Your task to perform on an android device: turn off translation in the chrome app Image 0: 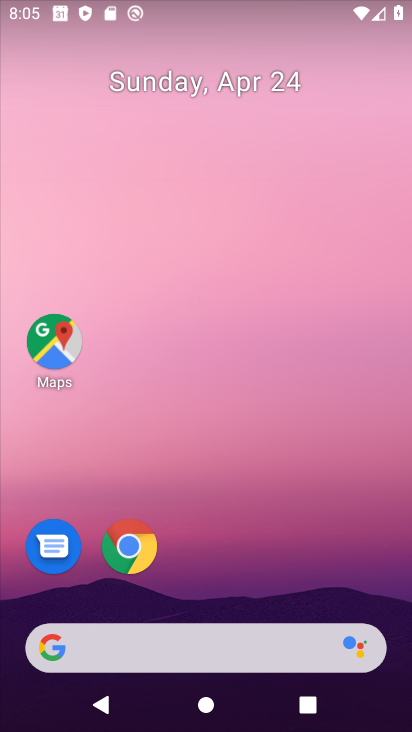
Step 0: click (147, 544)
Your task to perform on an android device: turn off translation in the chrome app Image 1: 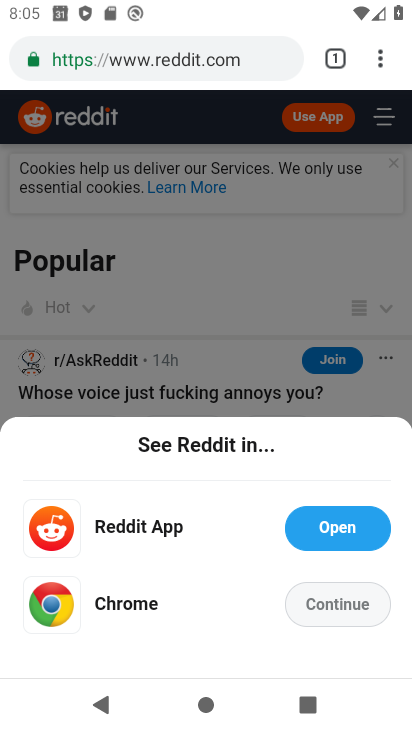
Step 1: click (328, 382)
Your task to perform on an android device: turn off translation in the chrome app Image 2: 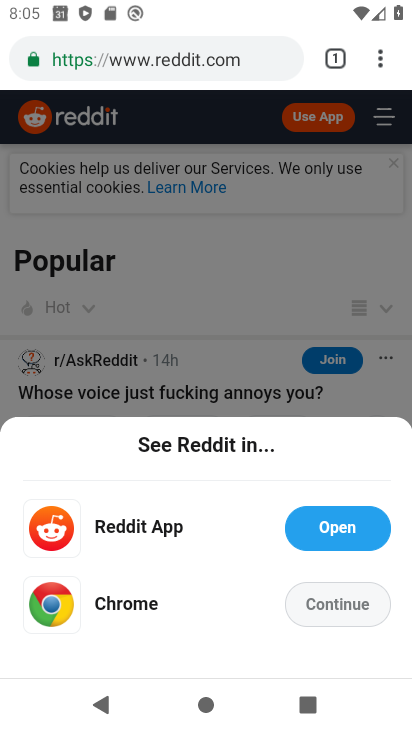
Step 2: click (381, 82)
Your task to perform on an android device: turn off translation in the chrome app Image 3: 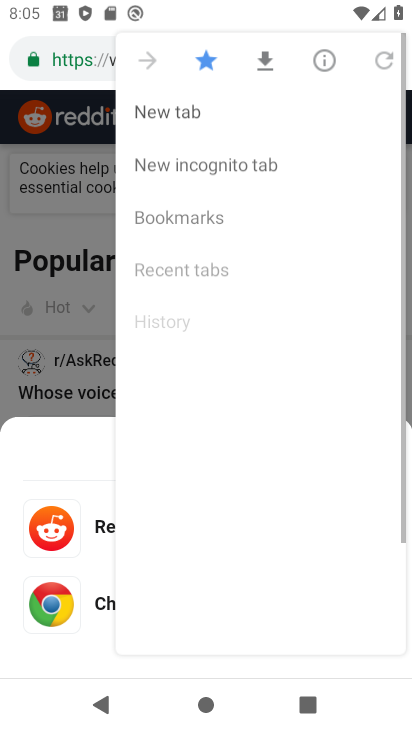
Step 3: click (381, 57)
Your task to perform on an android device: turn off translation in the chrome app Image 4: 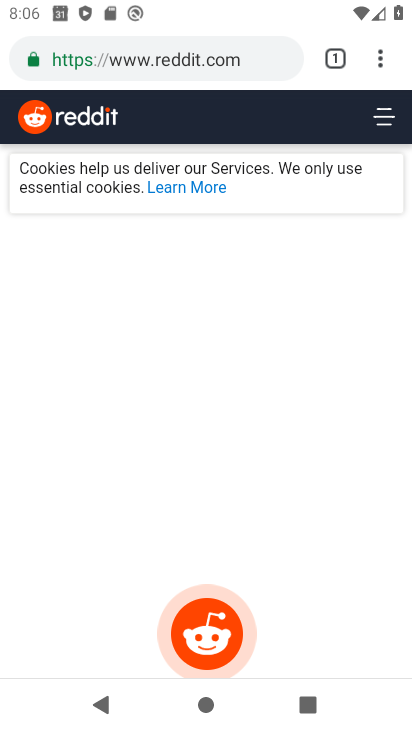
Step 4: click (381, 64)
Your task to perform on an android device: turn off translation in the chrome app Image 5: 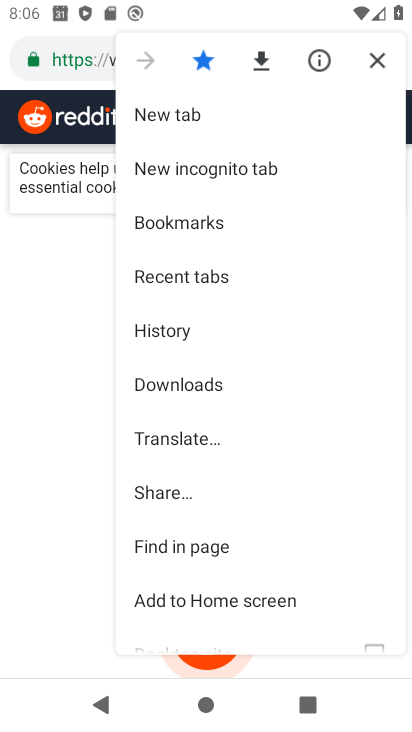
Step 5: click (208, 445)
Your task to perform on an android device: turn off translation in the chrome app Image 6: 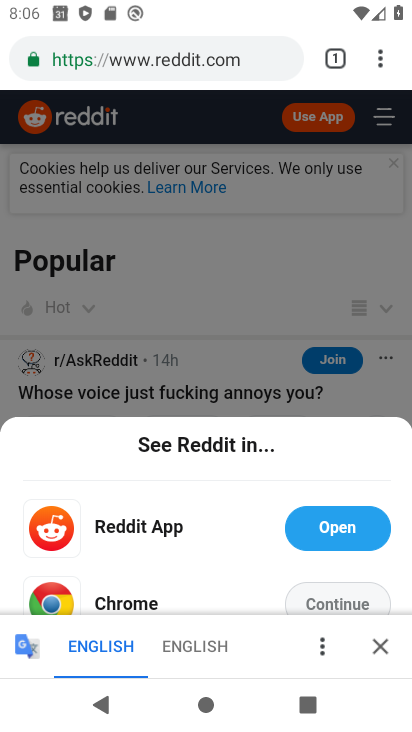
Step 6: click (376, 67)
Your task to perform on an android device: turn off translation in the chrome app Image 7: 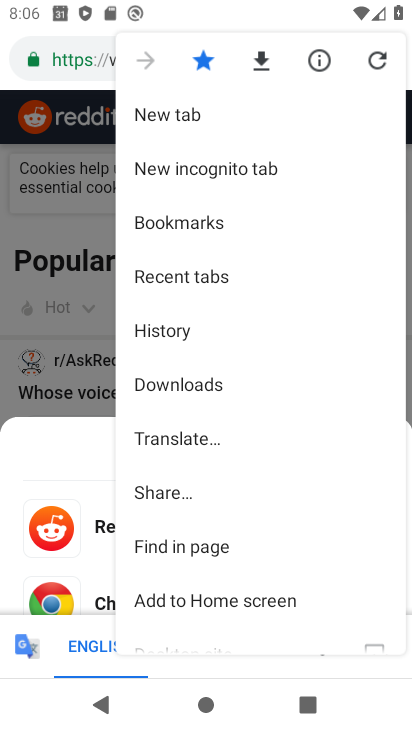
Step 7: drag from (217, 506) to (266, 228)
Your task to perform on an android device: turn off translation in the chrome app Image 8: 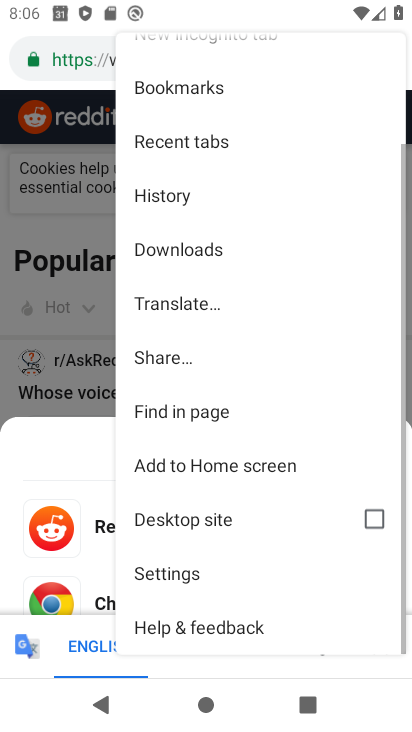
Step 8: click (212, 554)
Your task to perform on an android device: turn off translation in the chrome app Image 9: 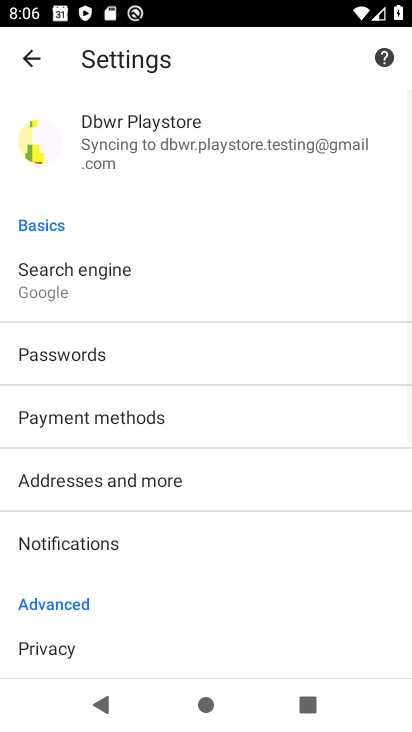
Step 9: drag from (212, 571) to (254, 202)
Your task to perform on an android device: turn off translation in the chrome app Image 10: 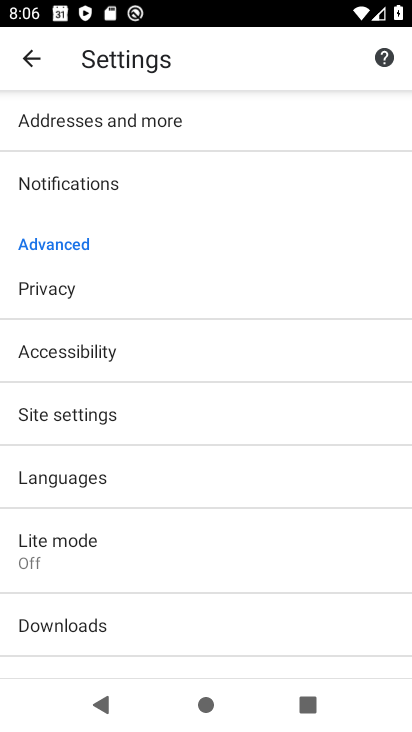
Step 10: drag from (178, 614) to (255, 265)
Your task to perform on an android device: turn off translation in the chrome app Image 11: 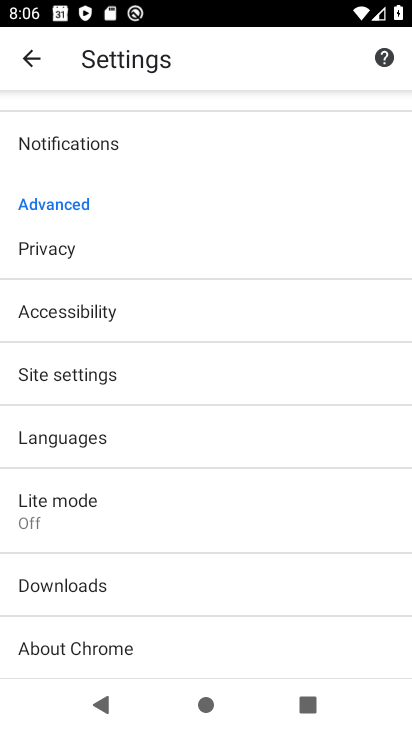
Step 11: drag from (179, 585) to (233, 343)
Your task to perform on an android device: turn off translation in the chrome app Image 12: 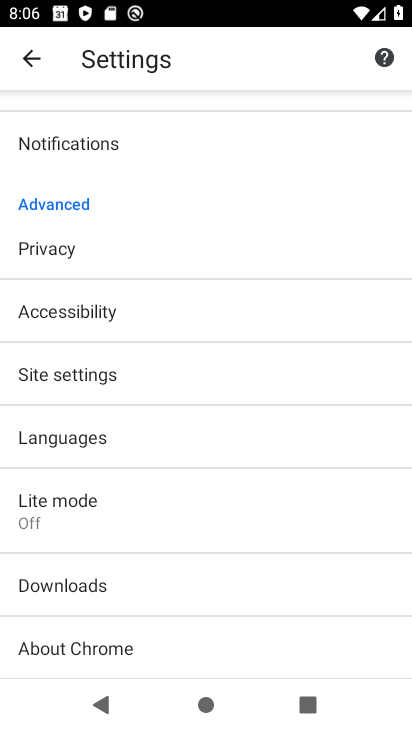
Step 12: drag from (190, 375) to (230, 169)
Your task to perform on an android device: turn off translation in the chrome app Image 13: 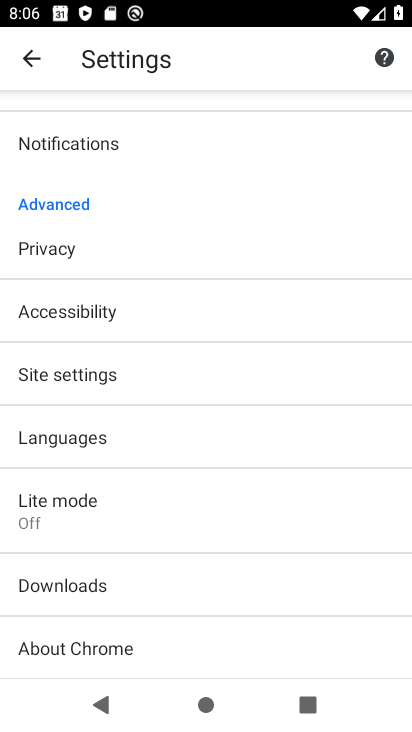
Step 13: click (147, 437)
Your task to perform on an android device: turn off translation in the chrome app Image 14: 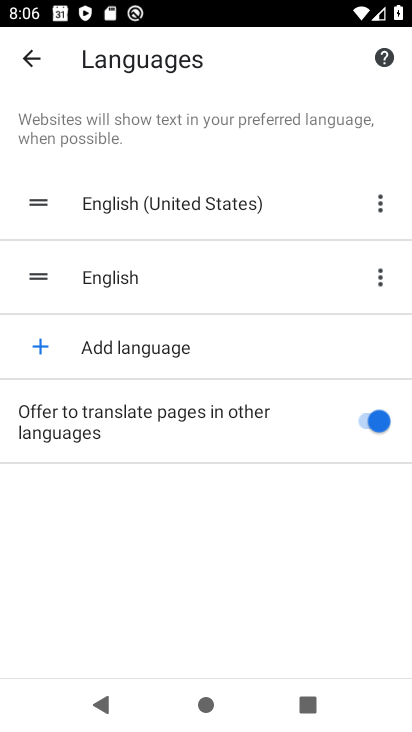
Step 14: click (147, 437)
Your task to perform on an android device: turn off translation in the chrome app Image 15: 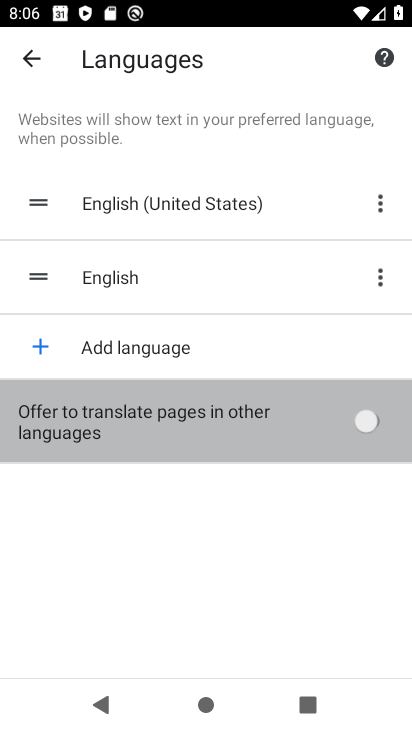
Step 15: click (147, 437)
Your task to perform on an android device: turn off translation in the chrome app Image 16: 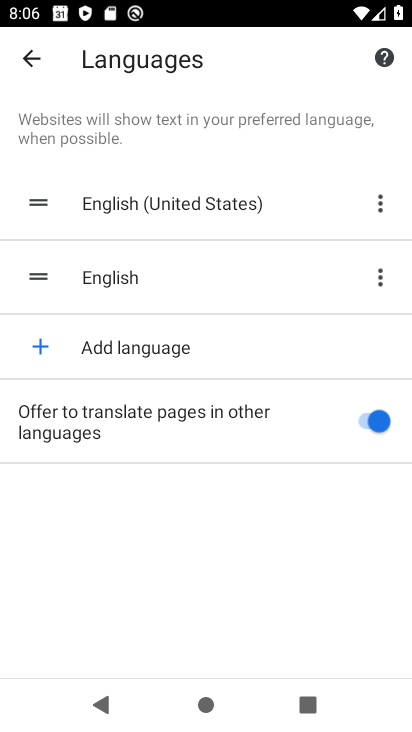
Step 16: task complete